Your task to perform on an android device: Search for seafood restaurants on Google Maps Image 0: 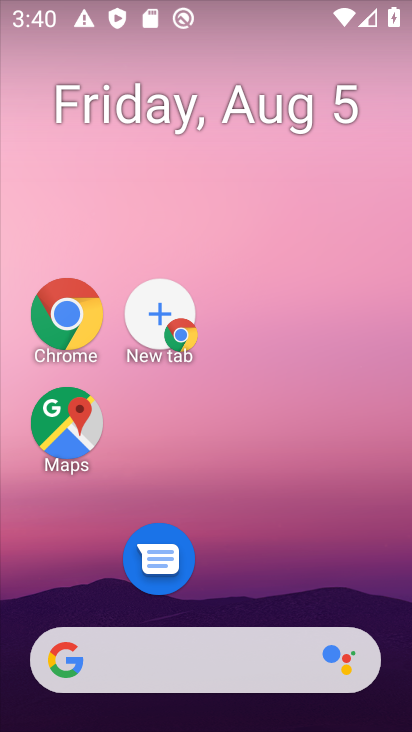
Step 0: click (211, 59)
Your task to perform on an android device: Search for seafood restaurants on Google Maps Image 1: 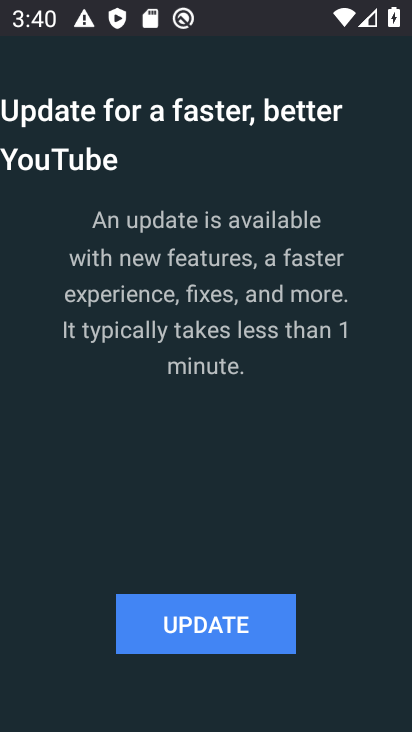
Step 1: drag from (159, 493) to (147, 35)
Your task to perform on an android device: Search for seafood restaurants on Google Maps Image 2: 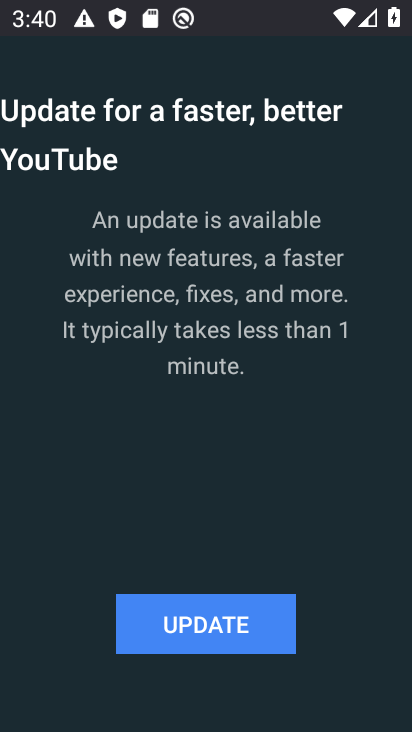
Step 2: drag from (249, 485) to (207, 47)
Your task to perform on an android device: Search for seafood restaurants on Google Maps Image 3: 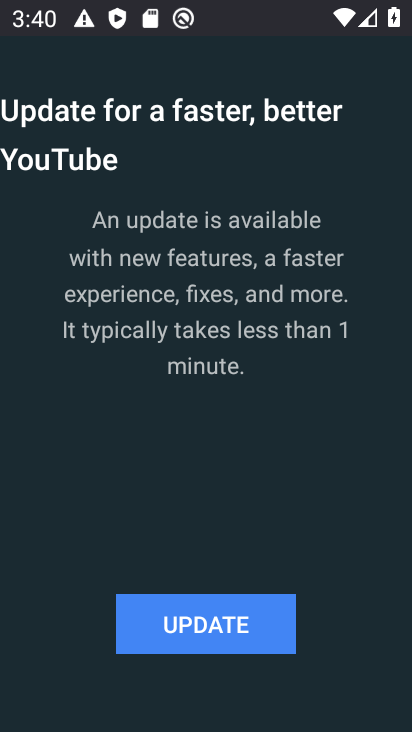
Step 3: press back button
Your task to perform on an android device: Search for seafood restaurants on Google Maps Image 4: 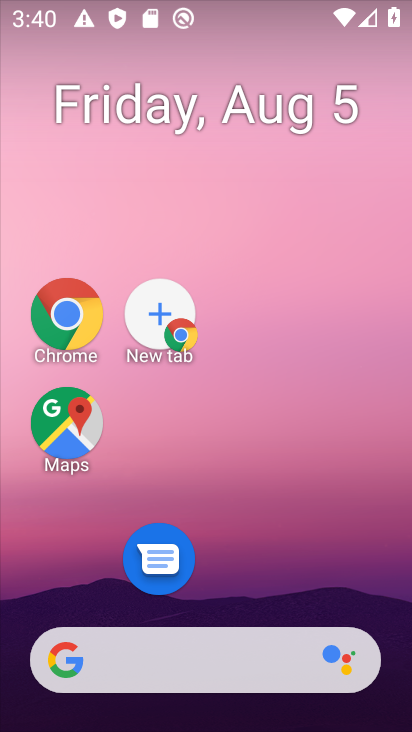
Step 4: drag from (270, 681) to (254, 139)
Your task to perform on an android device: Search for seafood restaurants on Google Maps Image 5: 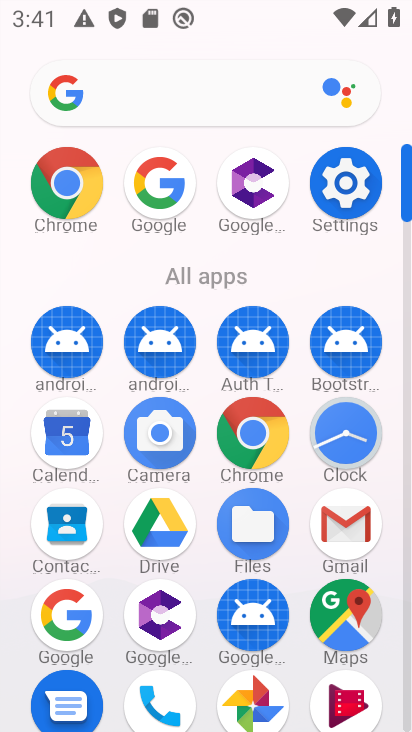
Step 5: click (339, 647)
Your task to perform on an android device: Search for seafood restaurants on Google Maps Image 6: 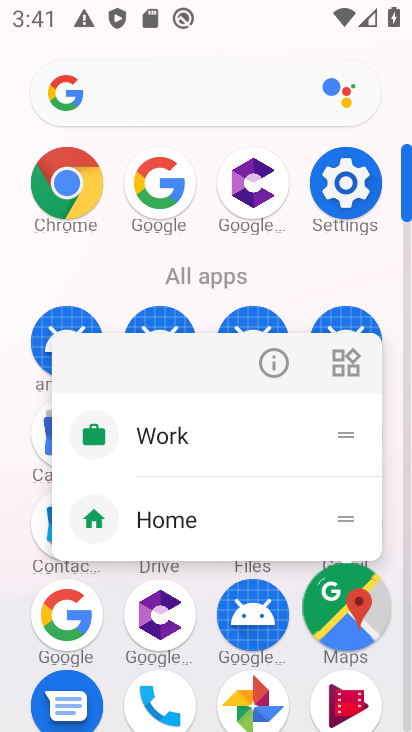
Step 6: click (341, 639)
Your task to perform on an android device: Search for seafood restaurants on Google Maps Image 7: 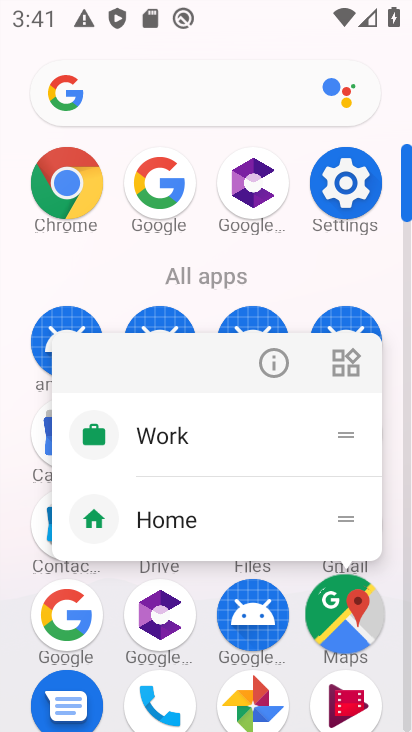
Step 7: click (345, 616)
Your task to perform on an android device: Search for seafood restaurants on Google Maps Image 8: 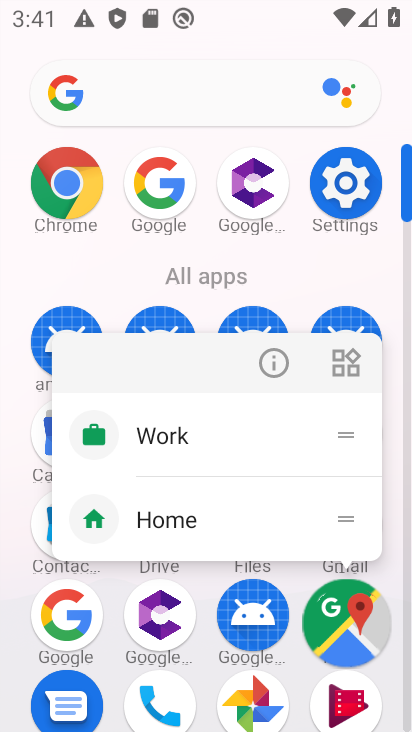
Step 8: click (340, 621)
Your task to perform on an android device: Search for seafood restaurants on Google Maps Image 9: 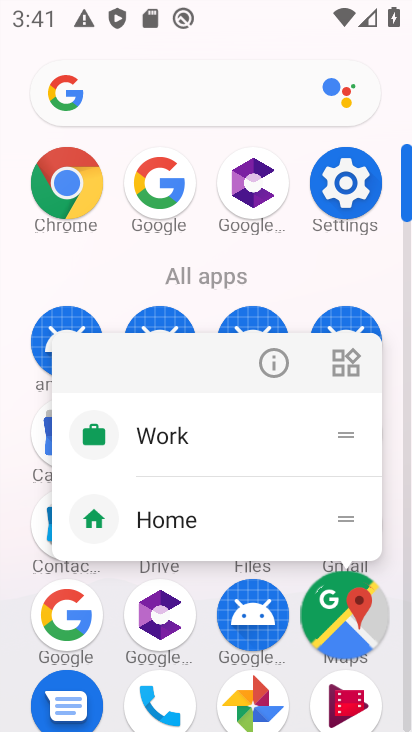
Step 9: click (340, 621)
Your task to perform on an android device: Search for seafood restaurants on Google Maps Image 10: 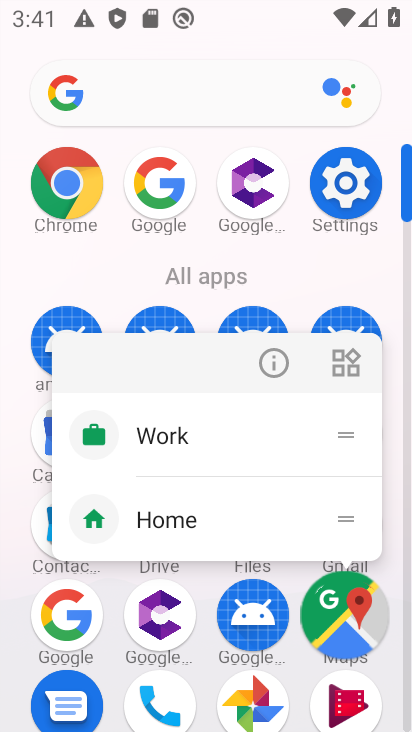
Step 10: click (339, 622)
Your task to perform on an android device: Search for seafood restaurants on Google Maps Image 11: 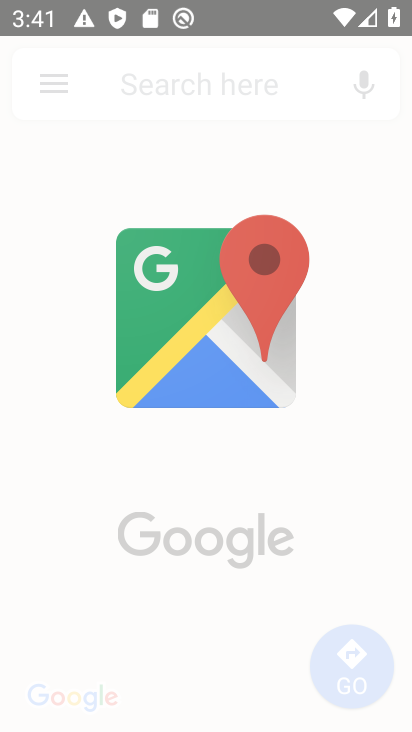
Step 11: click (186, 329)
Your task to perform on an android device: Search for seafood restaurants on Google Maps Image 12: 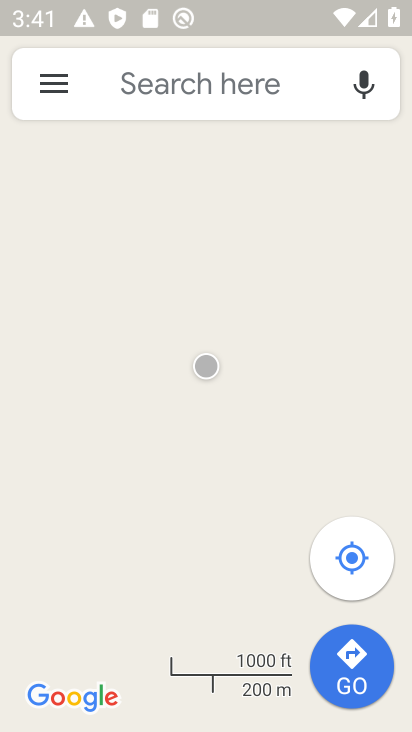
Step 12: click (89, 87)
Your task to perform on an android device: Search for seafood restaurants on Google Maps Image 13: 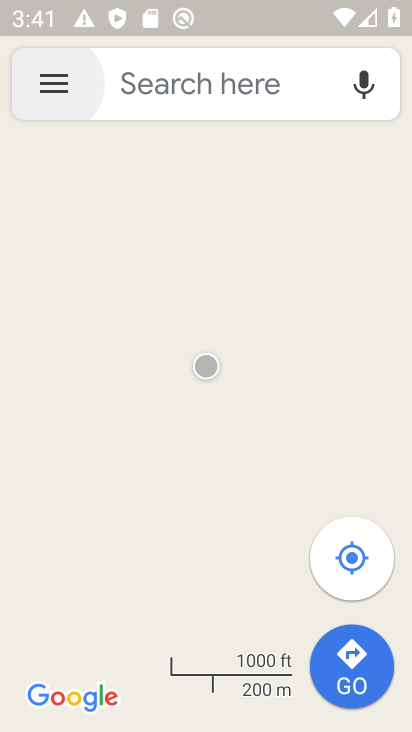
Step 13: click (115, 91)
Your task to perform on an android device: Search for seafood restaurants on Google Maps Image 14: 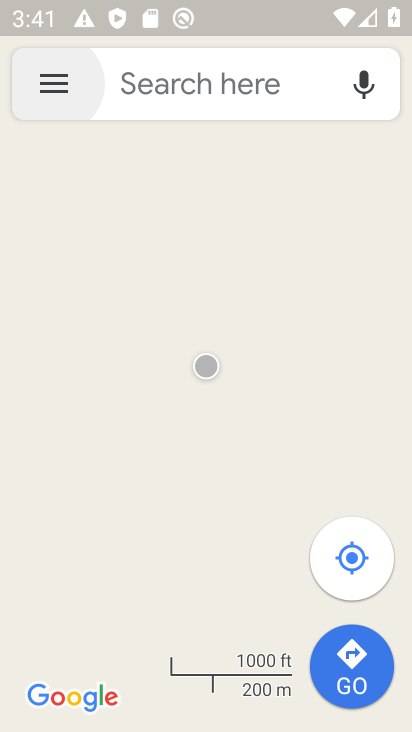
Step 14: click (115, 91)
Your task to perform on an android device: Search for seafood restaurants on Google Maps Image 15: 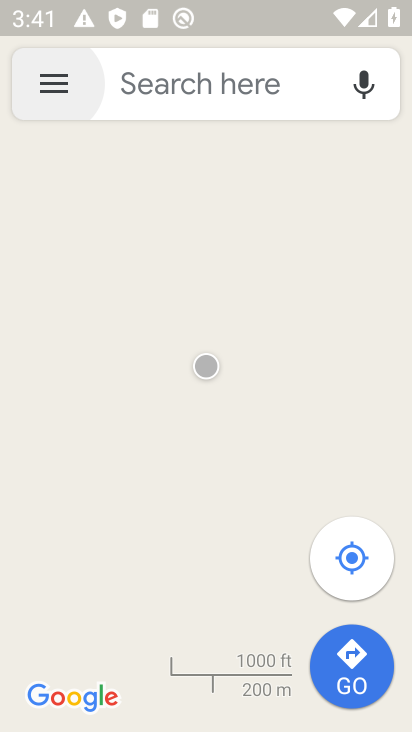
Step 15: click (119, 87)
Your task to perform on an android device: Search for seafood restaurants on Google Maps Image 16: 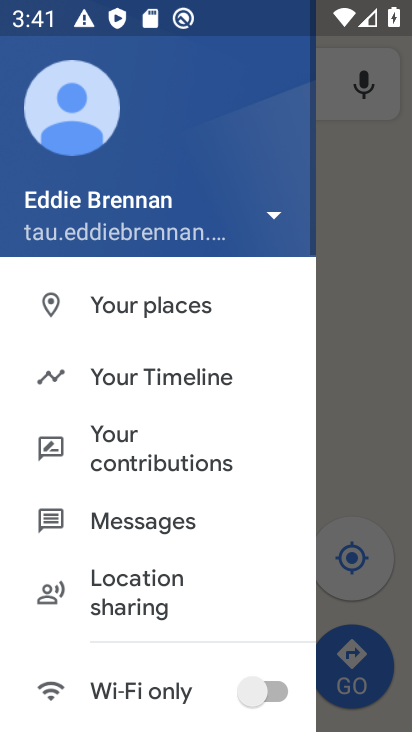
Step 16: click (138, 82)
Your task to perform on an android device: Search for seafood restaurants on Google Maps Image 17: 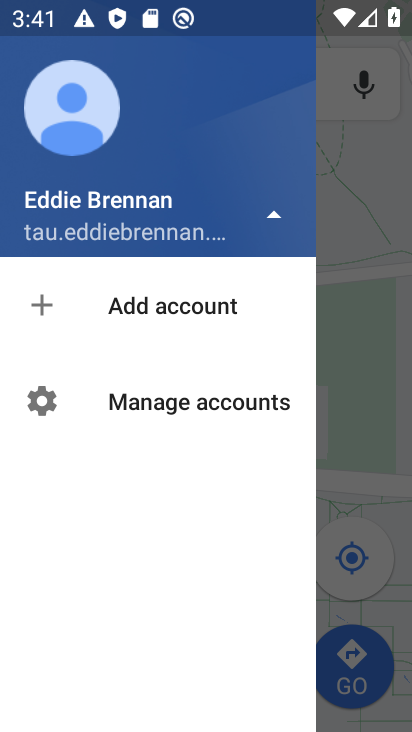
Step 17: click (359, 325)
Your task to perform on an android device: Search for seafood restaurants on Google Maps Image 18: 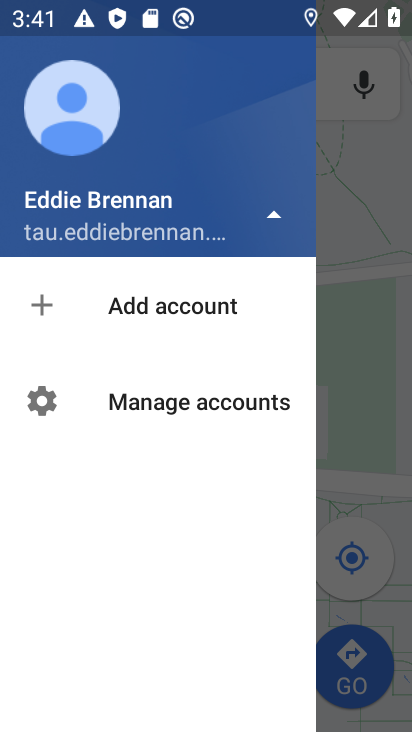
Step 18: click (358, 333)
Your task to perform on an android device: Search for seafood restaurants on Google Maps Image 19: 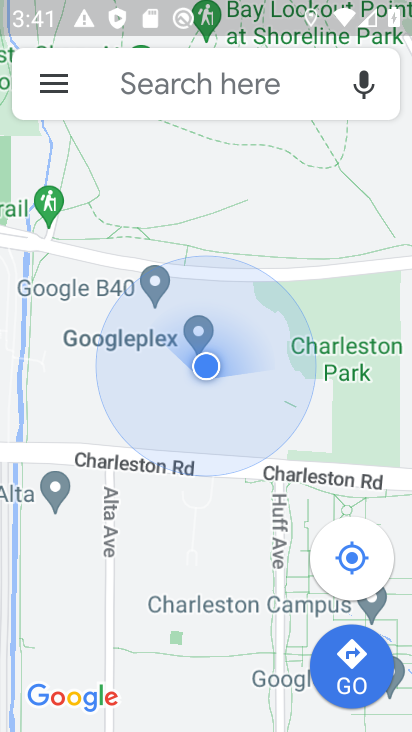
Step 19: click (121, 87)
Your task to perform on an android device: Search for seafood restaurants on Google Maps Image 20: 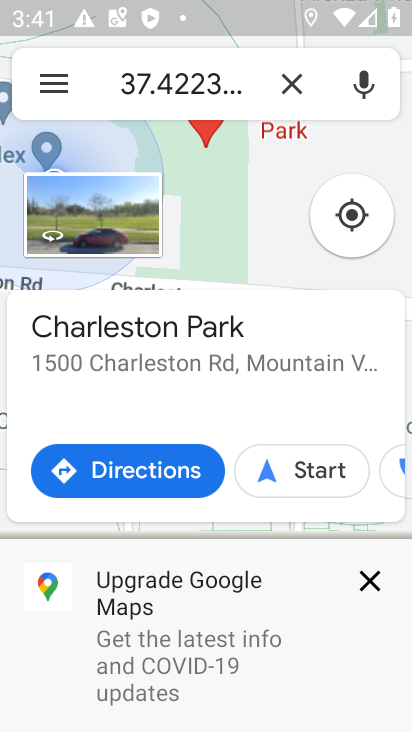
Step 20: click (291, 85)
Your task to perform on an android device: Search for seafood restaurants on Google Maps Image 21: 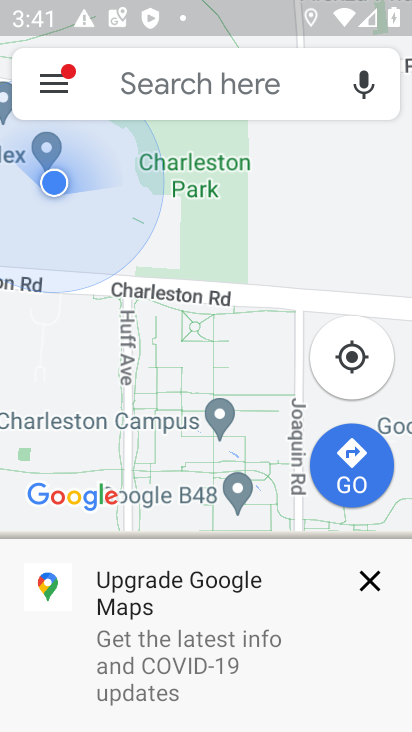
Step 21: click (116, 80)
Your task to perform on an android device: Search for seafood restaurants on Google Maps Image 22: 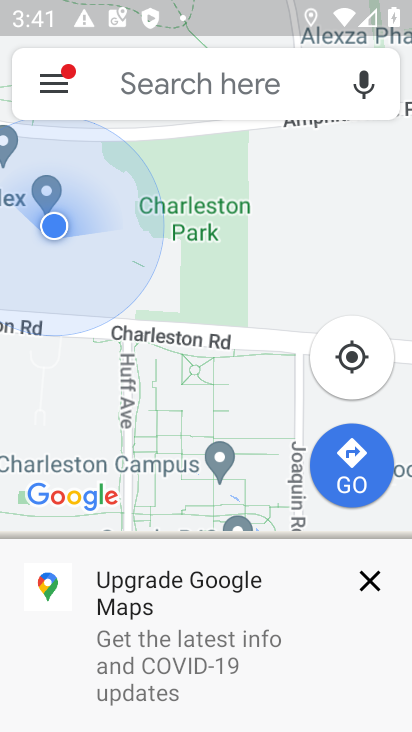
Step 22: click (113, 93)
Your task to perform on an android device: Search for seafood restaurants on Google Maps Image 23: 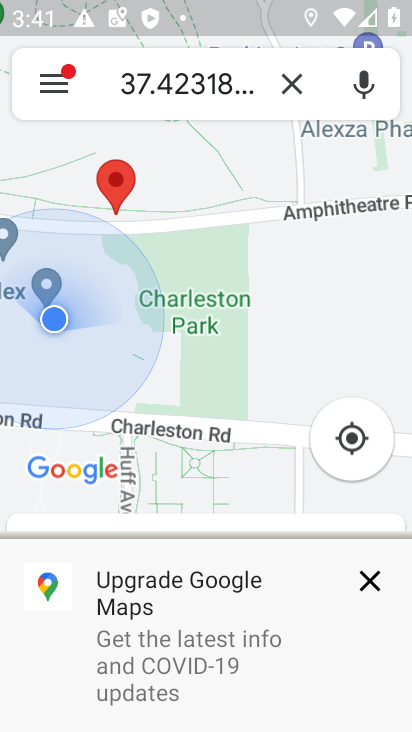
Step 23: click (116, 90)
Your task to perform on an android device: Search for seafood restaurants on Google Maps Image 24: 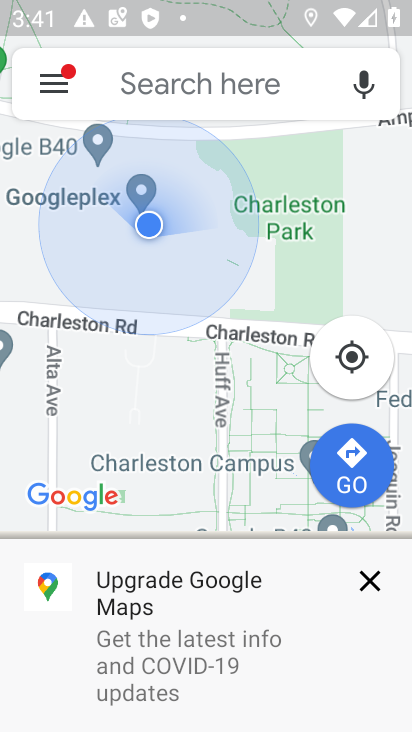
Step 24: click (273, 83)
Your task to perform on an android device: Search for seafood restaurants on Google Maps Image 25: 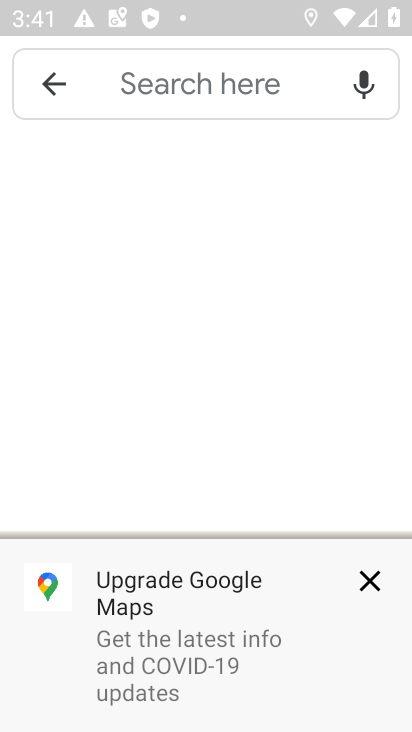
Step 25: drag from (88, 75) to (122, 79)
Your task to perform on an android device: Search for seafood restaurants on Google Maps Image 26: 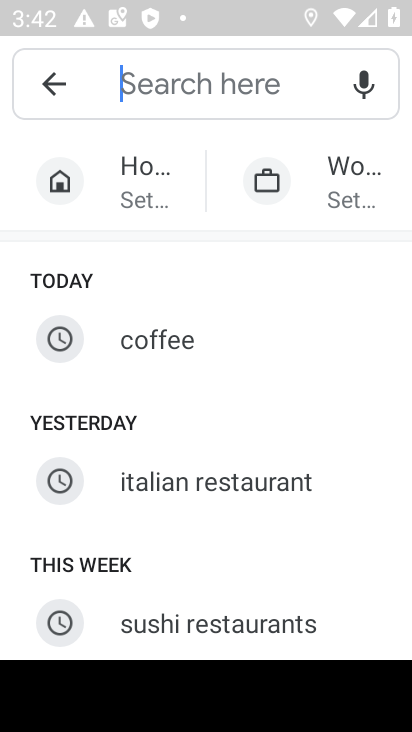
Step 26: type "seafood restaurants"
Your task to perform on an android device: Search for seafood restaurants on Google Maps Image 27: 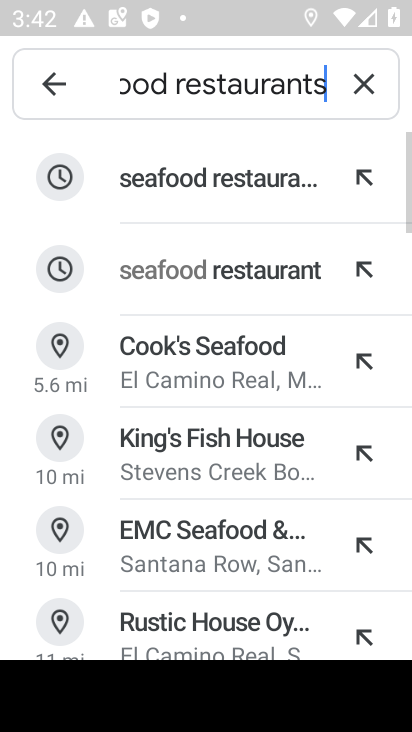
Step 27: click (192, 188)
Your task to perform on an android device: Search for seafood restaurants on Google Maps Image 28: 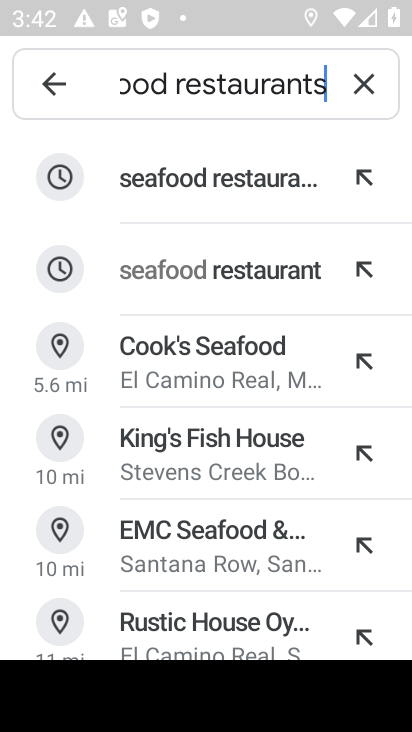
Step 28: click (192, 178)
Your task to perform on an android device: Search for seafood restaurants on Google Maps Image 29: 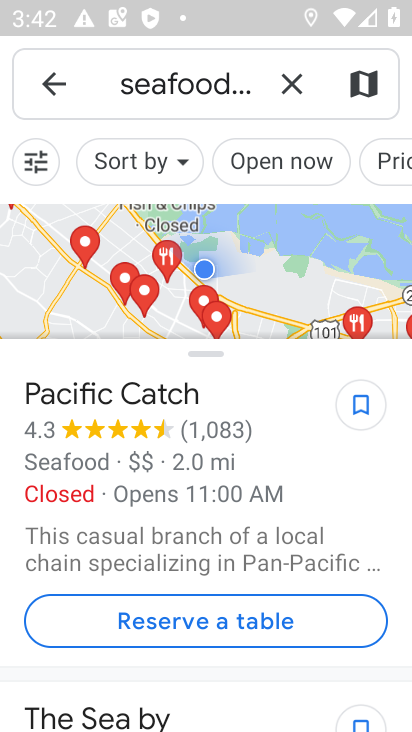
Step 29: task complete